Your task to perform on an android device: turn on priority inbox in the gmail app Image 0: 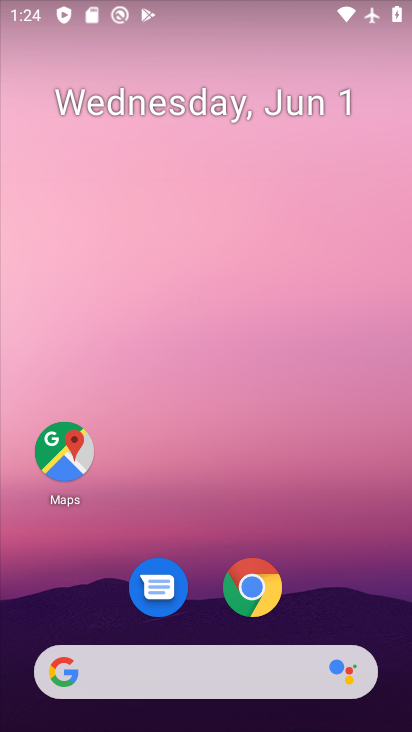
Step 0: drag from (310, 503) to (222, 117)
Your task to perform on an android device: turn on priority inbox in the gmail app Image 1: 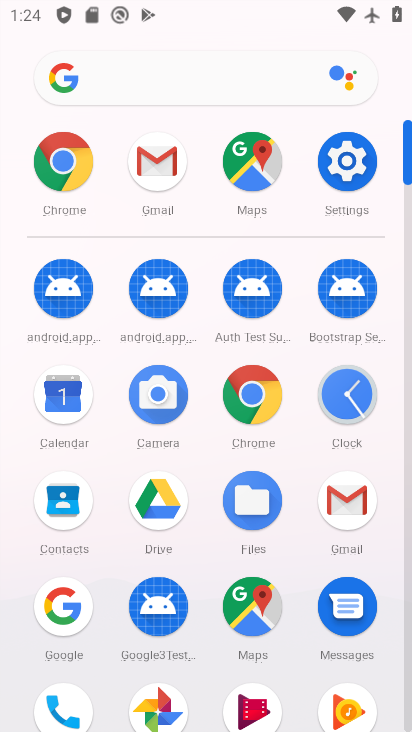
Step 1: click (331, 498)
Your task to perform on an android device: turn on priority inbox in the gmail app Image 2: 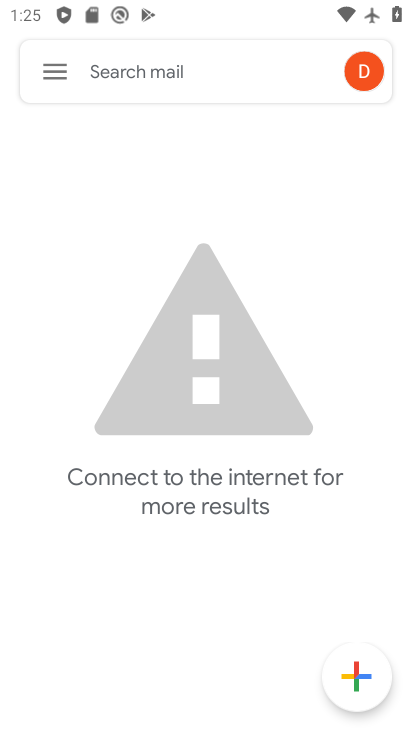
Step 2: click (54, 67)
Your task to perform on an android device: turn on priority inbox in the gmail app Image 3: 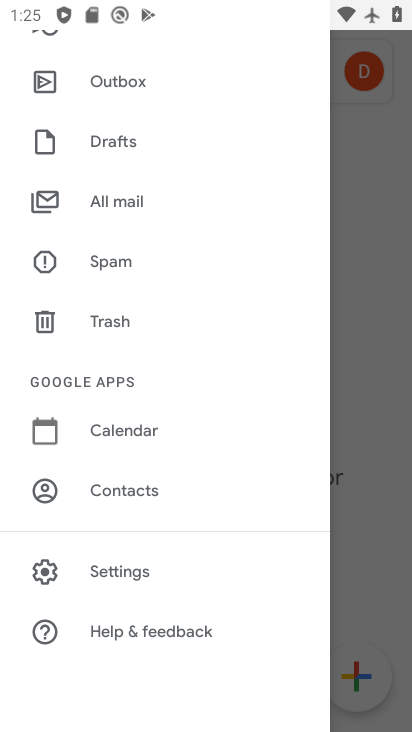
Step 3: click (116, 569)
Your task to perform on an android device: turn on priority inbox in the gmail app Image 4: 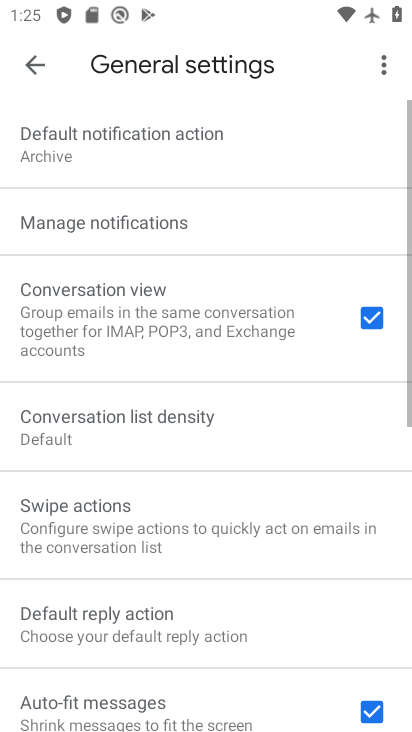
Step 4: drag from (116, 569) to (113, 176)
Your task to perform on an android device: turn on priority inbox in the gmail app Image 5: 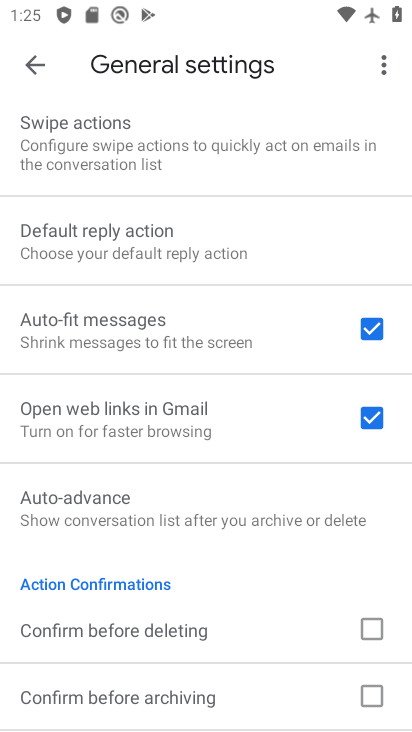
Step 5: drag from (113, 176) to (113, 701)
Your task to perform on an android device: turn on priority inbox in the gmail app Image 6: 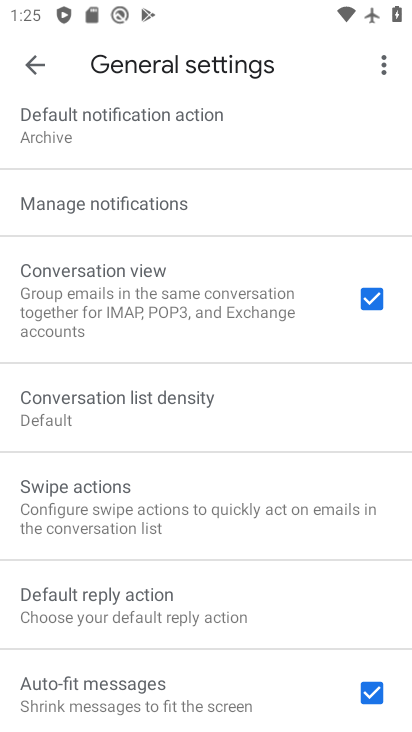
Step 6: click (34, 58)
Your task to perform on an android device: turn on priority inbox in the gmail app Image 7: 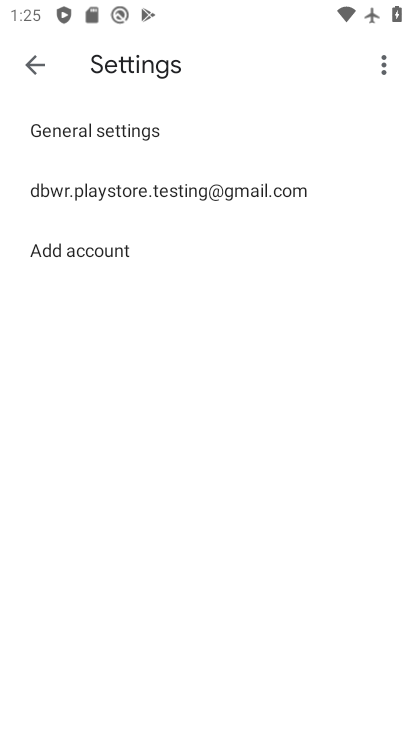
Step 7: click (100, 205)
Your task to perform on an android device: turn on priority inbox in the gmail app Image 8: 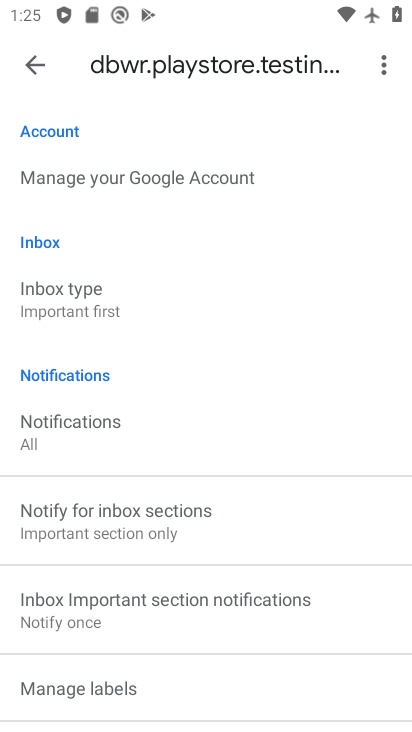
Step 8: click (65, 306)
Your task to perform on an android device: turn on priority inbox in the gmail app Image 9: 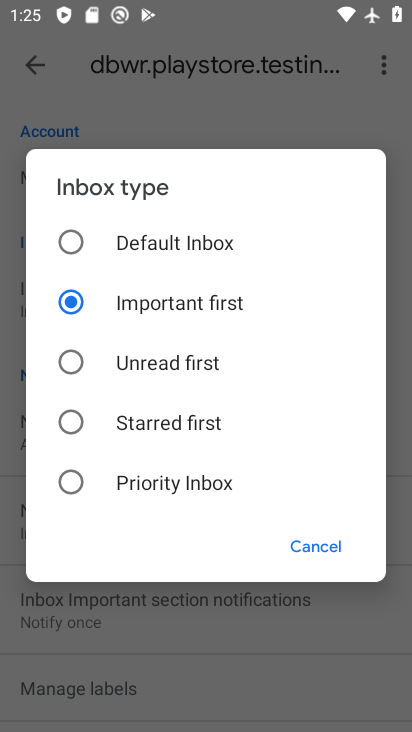
Step 9: click (73, 476)
Your task to perform on an android device: turn on priority inbox in the gmail app Image 10: 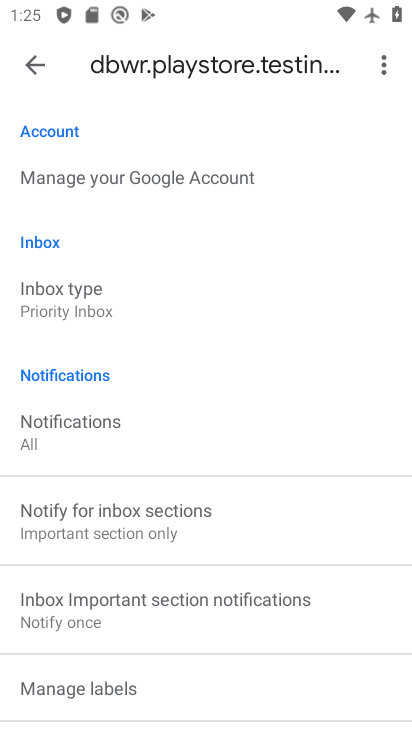
Step 10: task complete